Your task to perform on an android device: Open CNN.com Image 0: 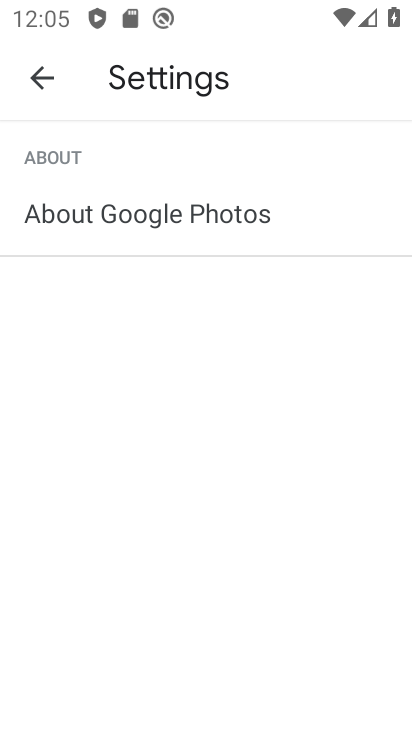
Step 0: press home button
Your task to perform on an android device: Open CNN.com Image 1: 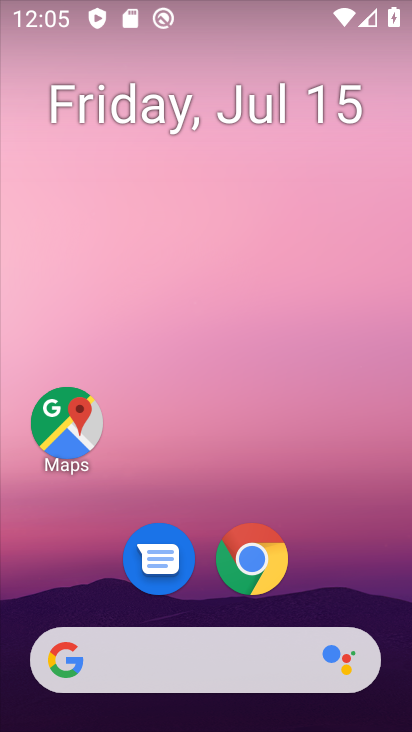
Step 1: drag from (385, 584) to (375, 120)
Your task to perform on an android device: Open CNN.com Image 2: 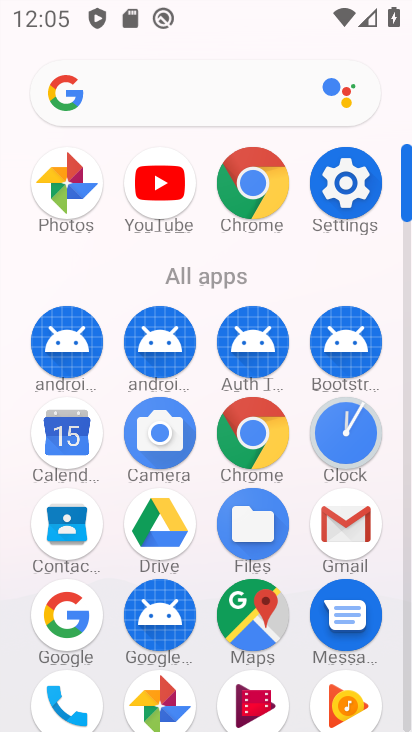
Step 2: click (264, 196)
Your task to perform on an android device: Open CNN.com Image 3: 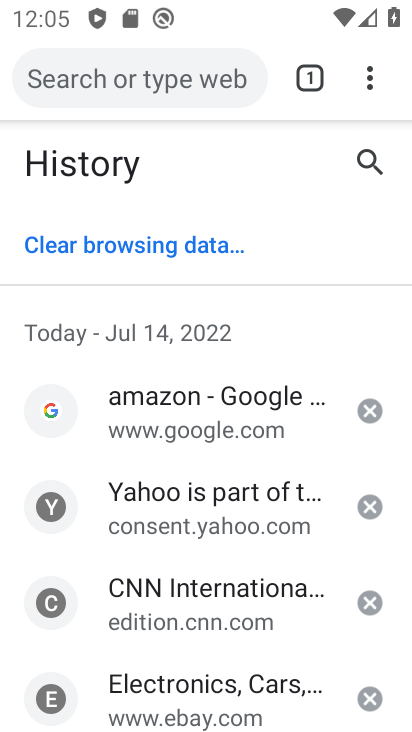
Step 3: click (201, 75)
Your task to perform on an android device: Open CNN.com Image 4: 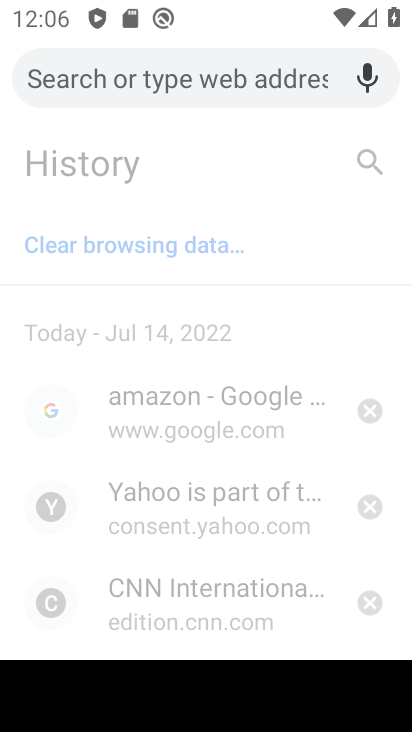
Step 4: type "cnn.com"
Your task to perform on an android device: Open CNN.com Image 5: 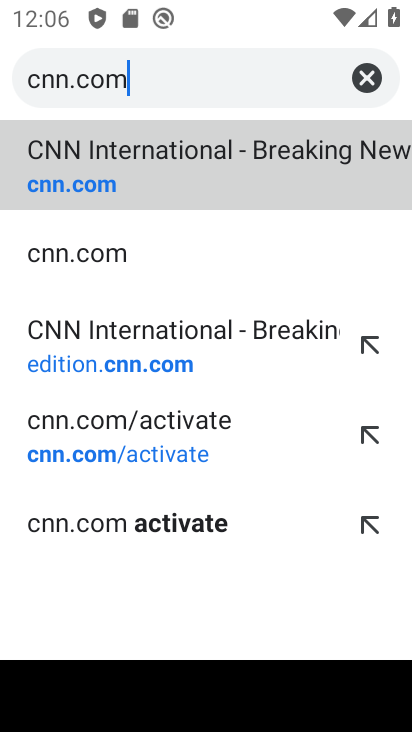
Step 5: click (375, 184)
Your task to perform on an android device: Open CNN.com Image 6: 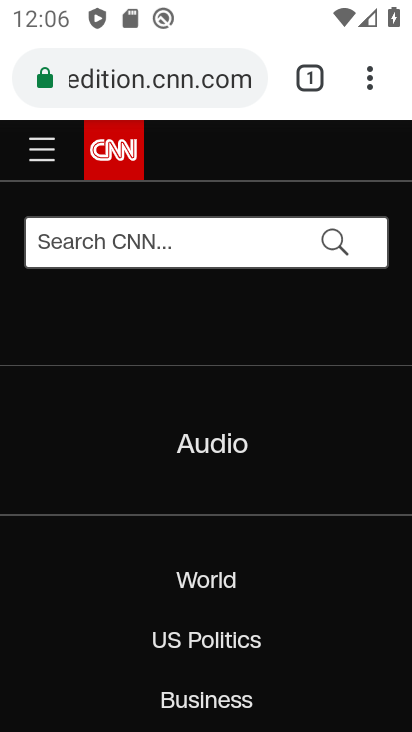
Step 6: task complete